Your task to perform on an android device: Open location settings Image 0: 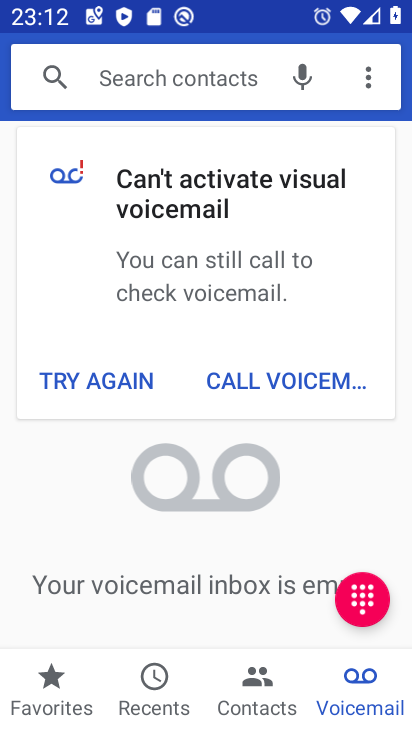
Step 0: press home button
Your task to perform on an android device: Open location settings Image 1: 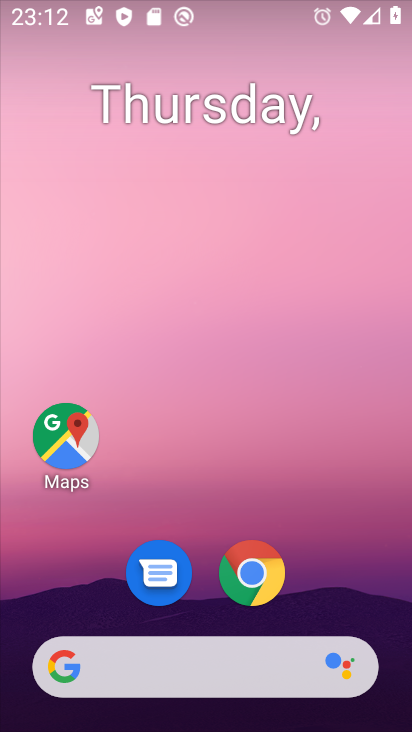
Step 1: drag from (342, 539) to (289, 187)
Your task to perform on an android device: Open location settings Image 2: 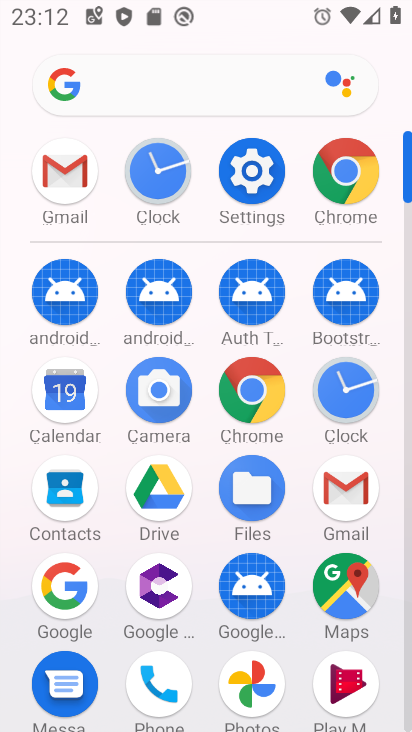
Step 2: click (249, 164)
Your task to perform on an android device: Open location settings Image 3: 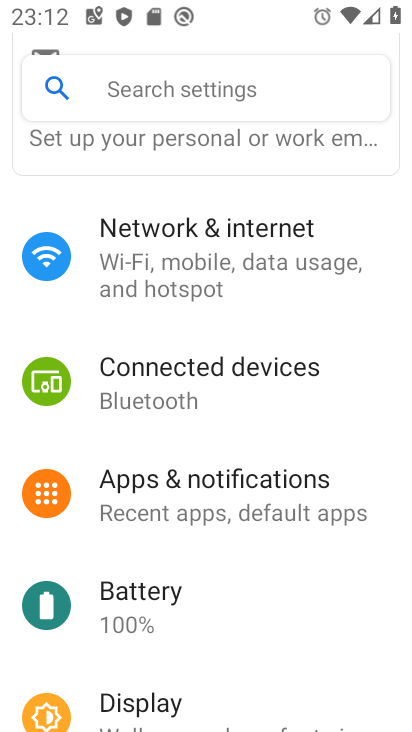
Step 3: drag from (253, 511) to (310, 136)
Your task to perform on an android device: Open location settings Image 4: 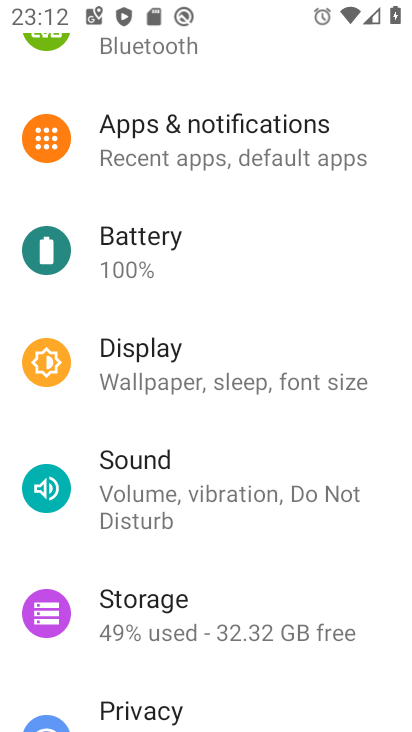
Step 4: click (313, 118)
Your task to perform on an android device: Open location settings Image 5: 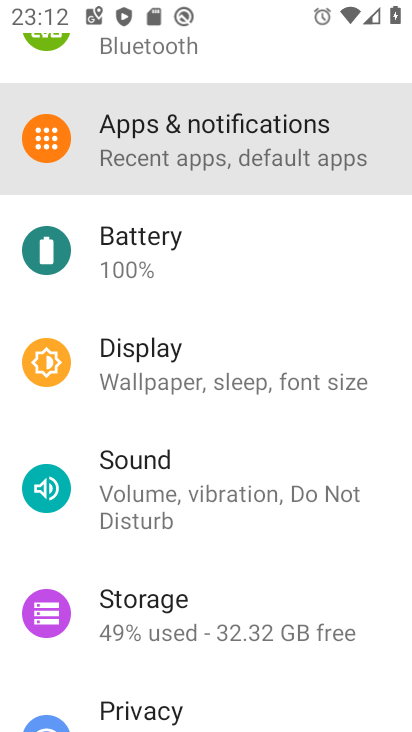
Step 5: drag from (261, 497) to (284, 158)
Your task to perform on an android device: Open location settings Image 6: 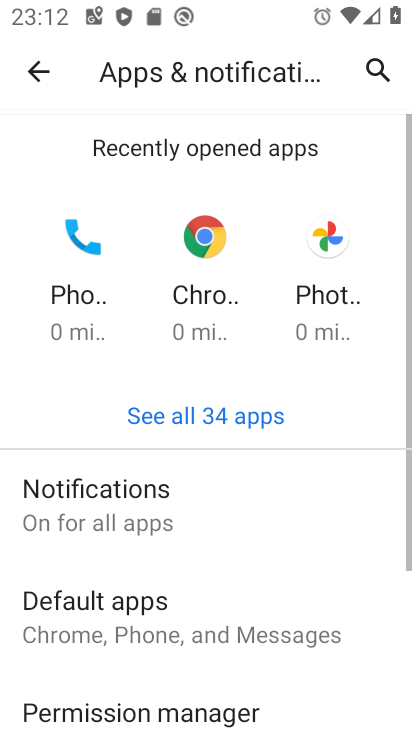
Step 6: click (48, 65)
Your task to perform on an android device: Open location settings Image 7: 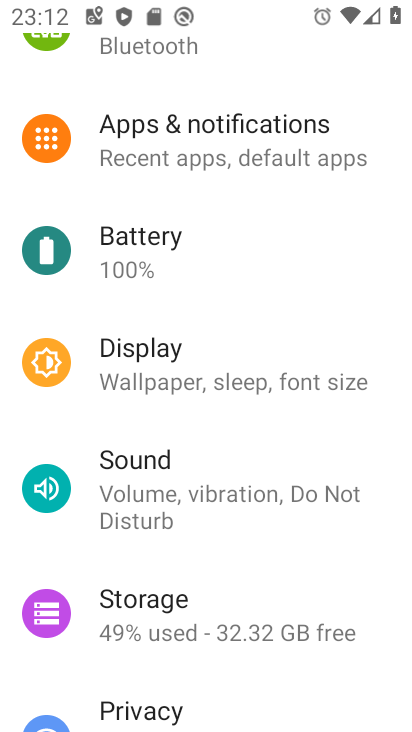
Step 7: drag from (171, 524) to (262, 42)
Your task to perform on an android device: Open location settings Image 8: 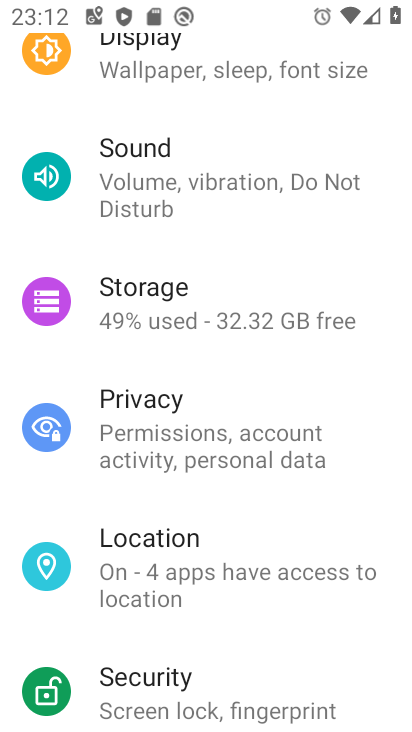
Step 8: click (264, 36)
Your task to perform on an android device: Open location settings Image 9: 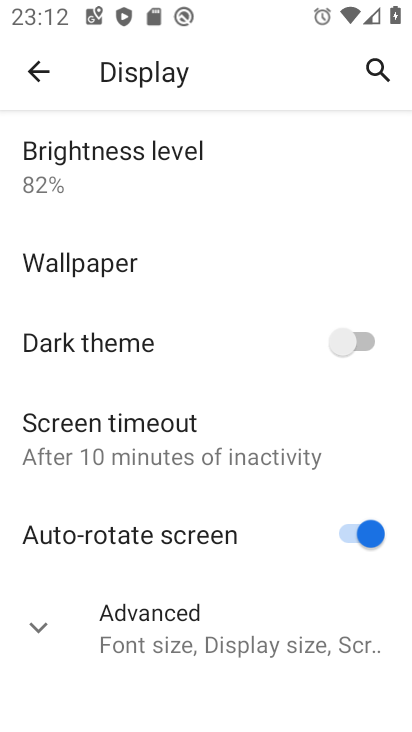
Step 9: click (33, 76)
Your task to perform on an android device: Open location settings Image 10: 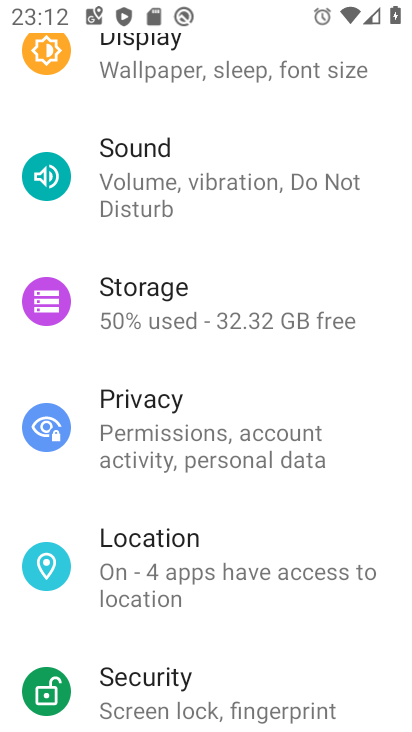
Step 10: click (179, 560)
Your task to perform on an android device: Open location settings Image 11: 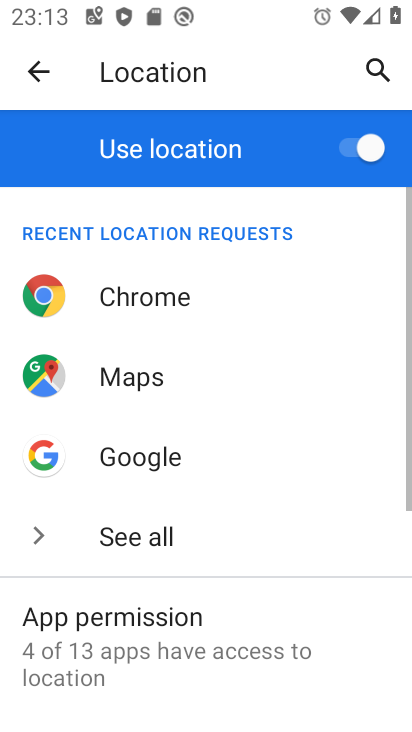
Step 11: task complete